Your task to perform on an android device: change your default location settings in chrome Image 0: 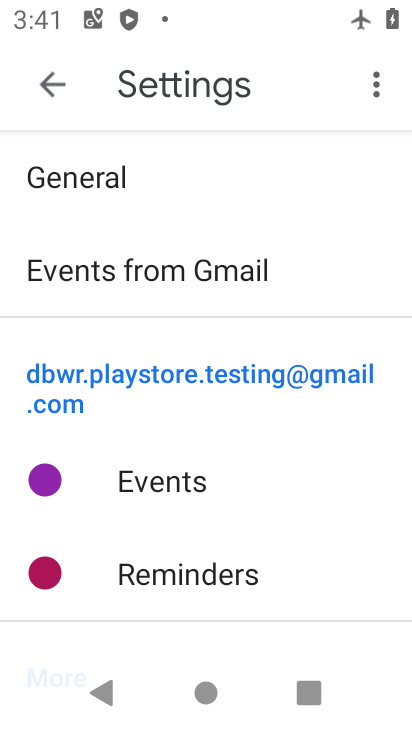
Step 0: press home button
Your task to perform on an android device: change your default location settings in chrome Image 1: 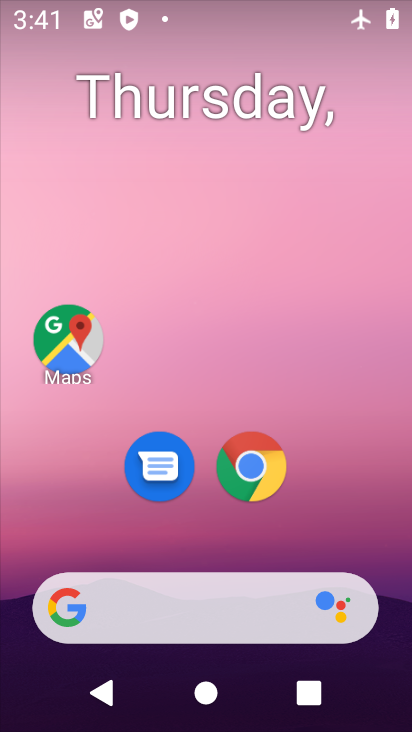
Step 1: drag from (325, 558) to (350, 8)
Your task to perform on an android device: change your default location settings in chrome Image 2: 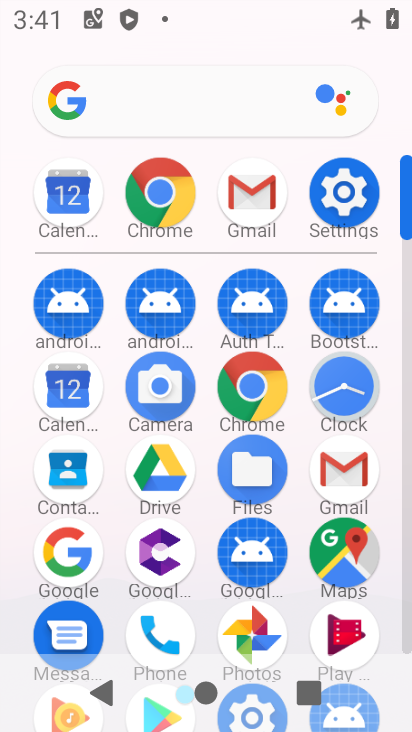
Step 2: click (249, 391)
Your task to perform on an android device: change your default location settings in chrome Image 3: 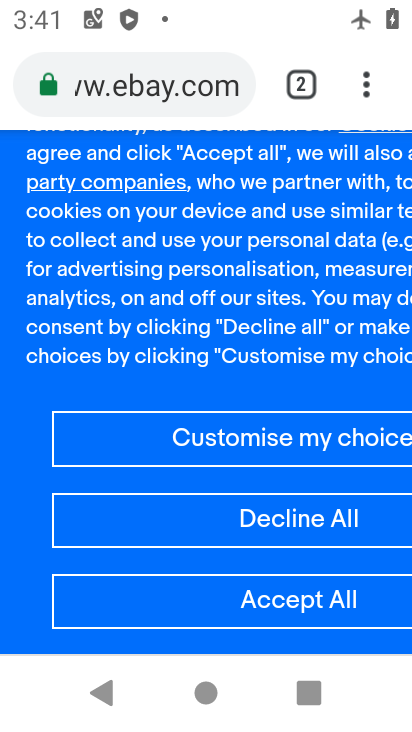
Step 3: click (366, 74)
Your task to perform on an android device: change your default location settings in chrome Image 4: 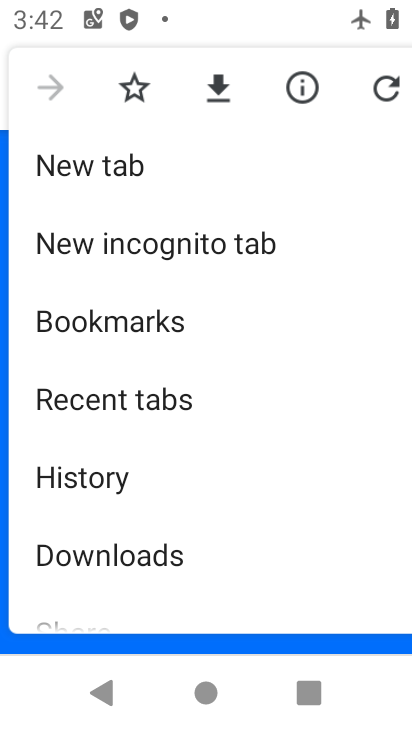
Step 4: drag from (238, 513) to (326, 136)
Your task to perform on an android device: change your default location settings in chrome Image 5: 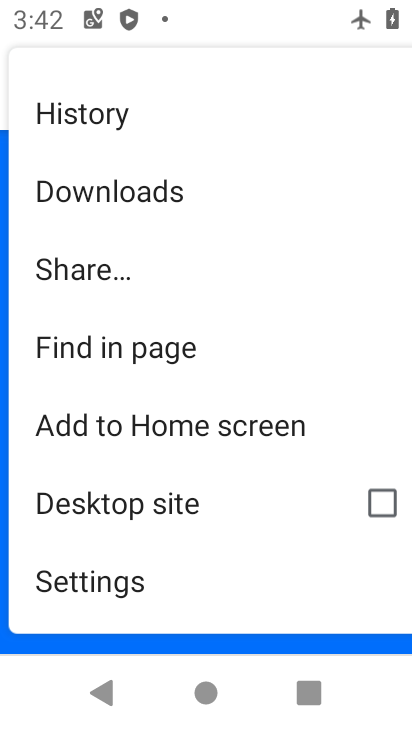
Step 5: drag from (134, 602) to (230, 194)
Your task to perform on an android device: change your default location settings in chrome Image 6: 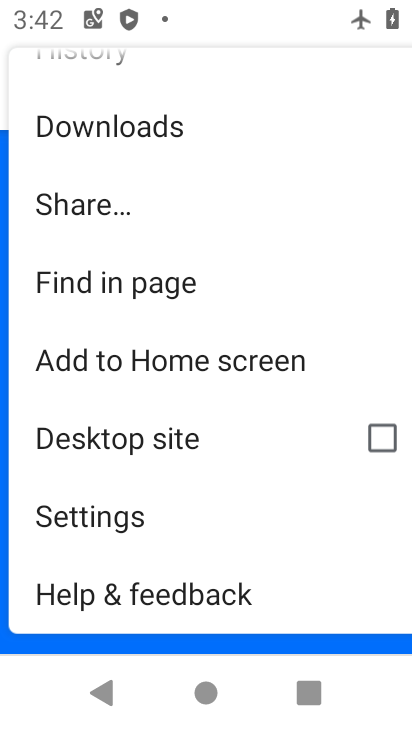
Step 6: click (86, 525)
Your task to perform on an android device: change your default location settings in chrome Image 7: 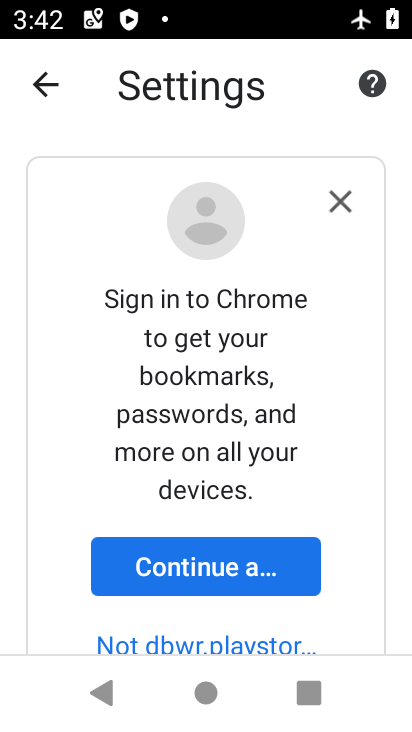
Step 7: drag from (299, 632) to (276, 145)
Your task to perform on an android device: change your default location settings in chrome Image 8: 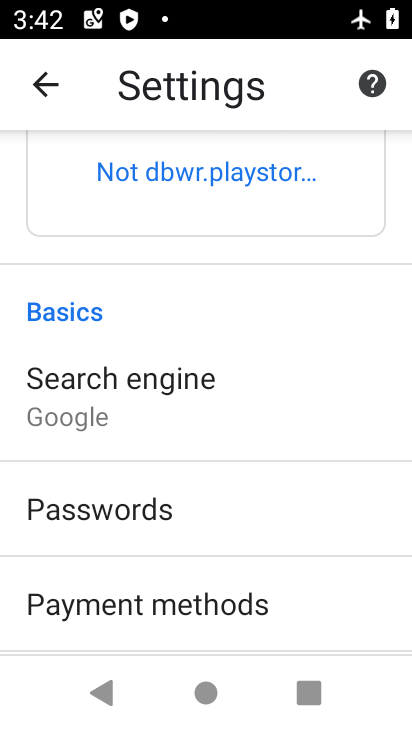
Step 8: drag from (188, 647) to (263, 86)
Your task to perform on an android device: change your default location settings in chrome Image 9: 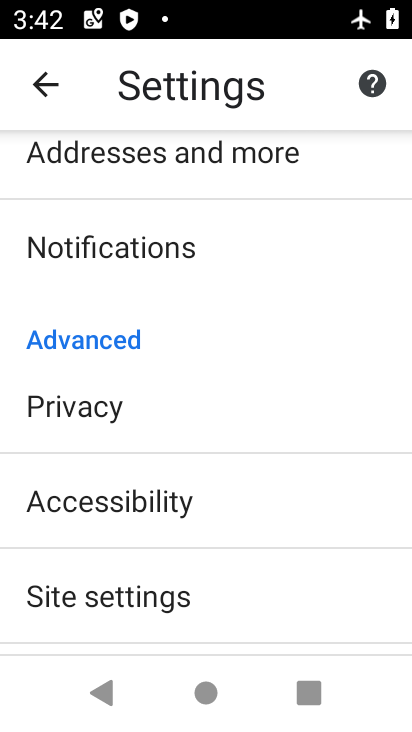
Step 9: click (146, 590)
Your task to perform on an android device: change your default location settings in chrome Image 10: 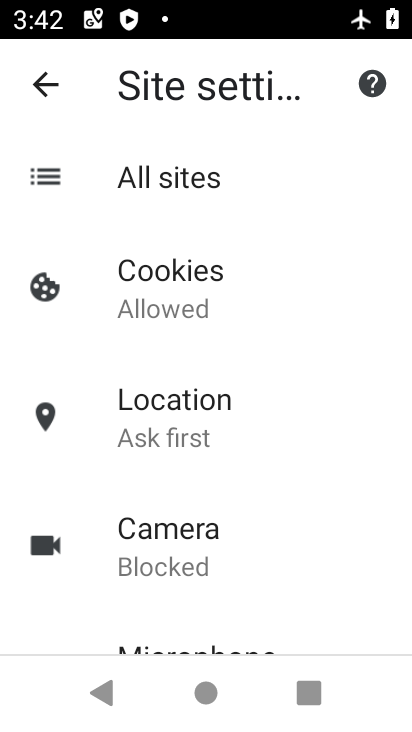
Step 10: drag from (231, 642) to (269, 135)
Your task to perform on an android device: change your default location settings in chrome Image 11: 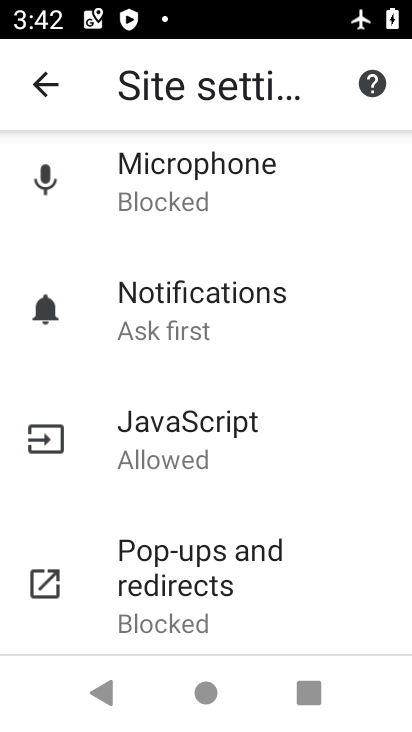
Step 11: drag from (241, 611) to (320, 200)
Your task to perform on an android device: change your default location settings in chrome Image 12: 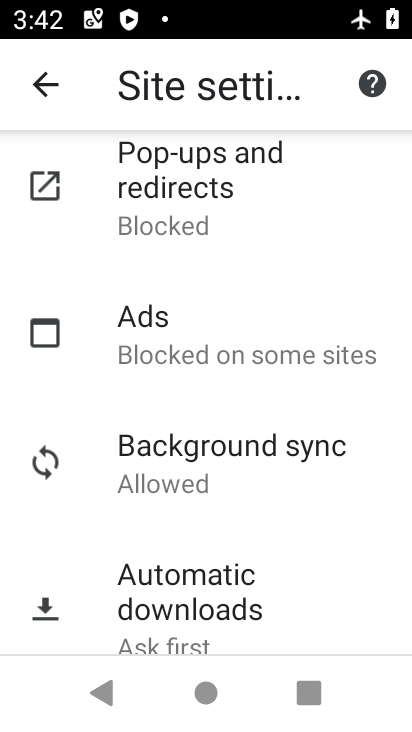
Step 12: drag from (283, 232) to (245, 644)
Your task to perform on an android device: change your default location settings in chrome Image 13: 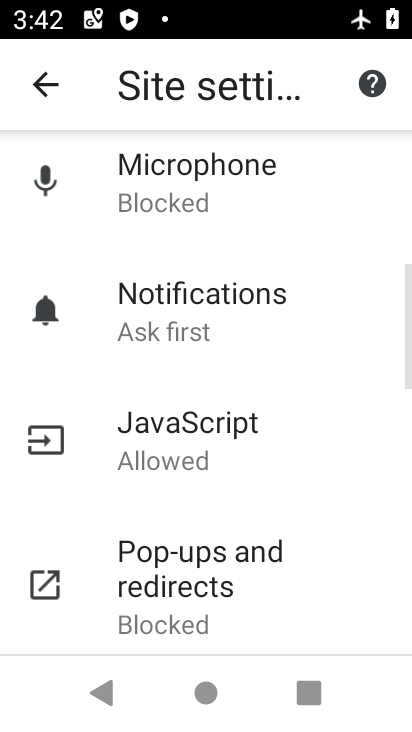
Step 13: drag from (283, 278) to (316, 713)
Your task to perform on an android device: change your default location settings in chrome Image 14: 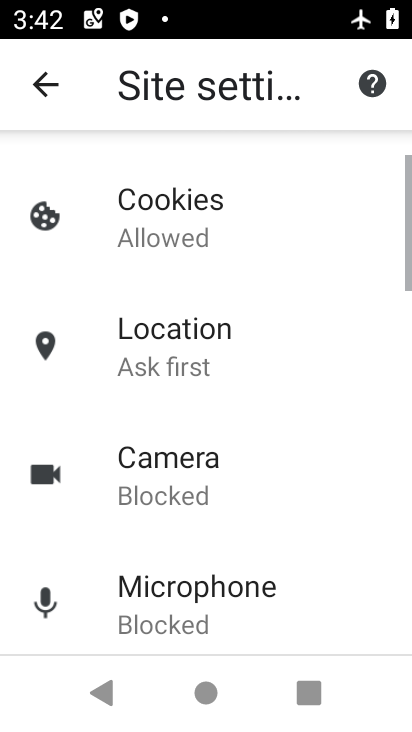
Step 14: click (208, 342)
Your task to perform on an android device: change your default location settings in chrome Image 15: 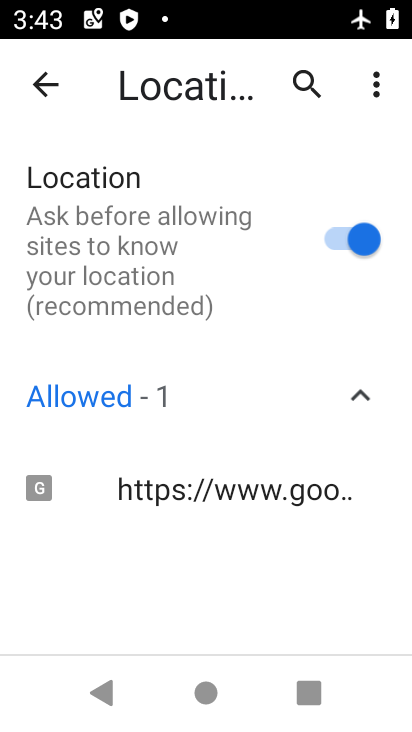
Step 15: task complete